Your task to perform on an android device: Open the stopwatch Image 0: 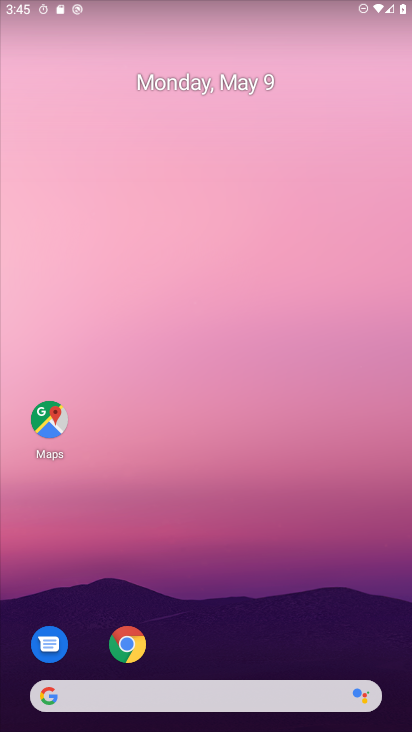
Step 0: drag from (217, 631) to (214, 19)
Your task to perform on an android device: Open the stopwatch Image 1: 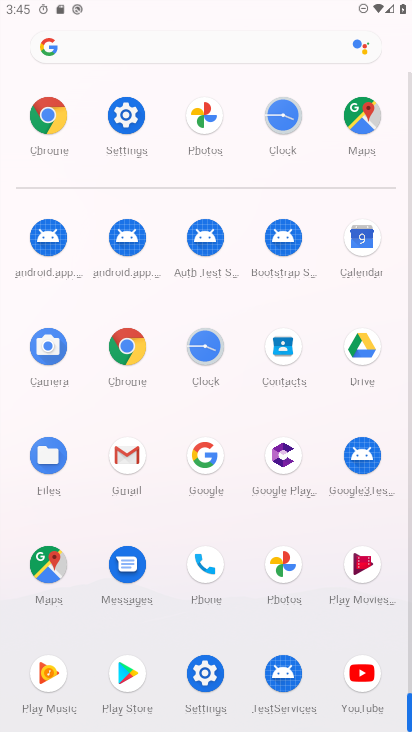
Step 1: click (287, 141)
Your task to perform on an android device: Open the stopwatch Image 2: 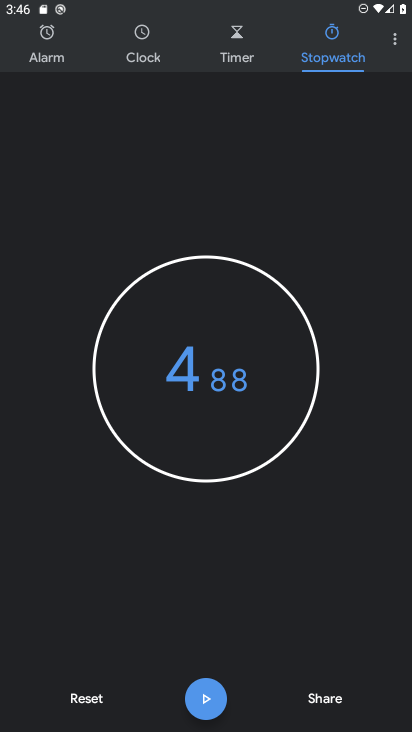
Step 2: task complete